Your task to perform on an android device: open a bookmark in the chrome app Image 0: 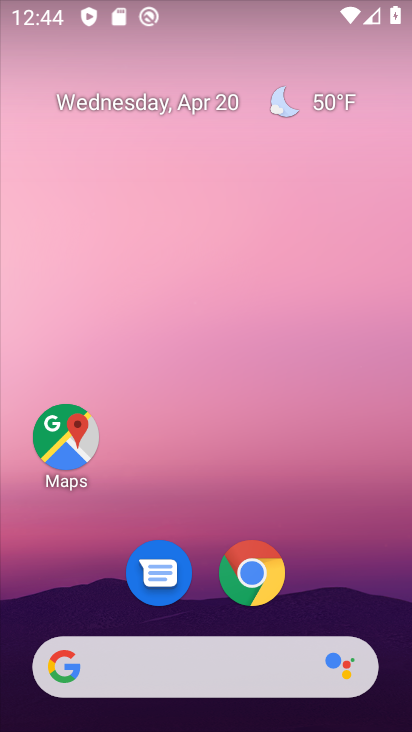
Step 0: drag from (300, 307) to (289, 0)
Your task to perform on an android device: open a bookmark in the chrome app Image 1: 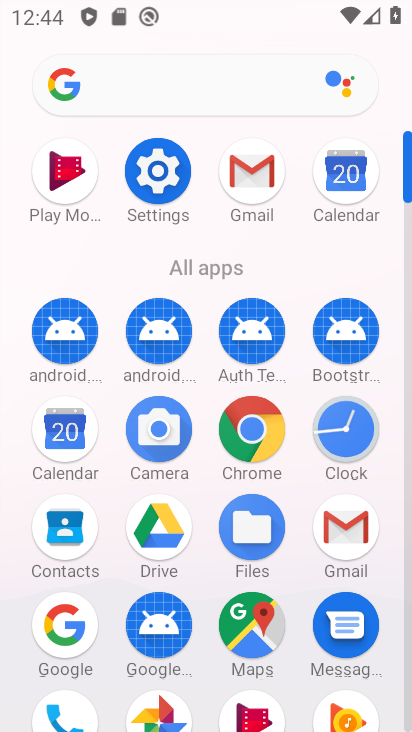
Step 1: click (278, 443)
Your task to perform on an android device: open a bookmark in the chrome app Image 2: 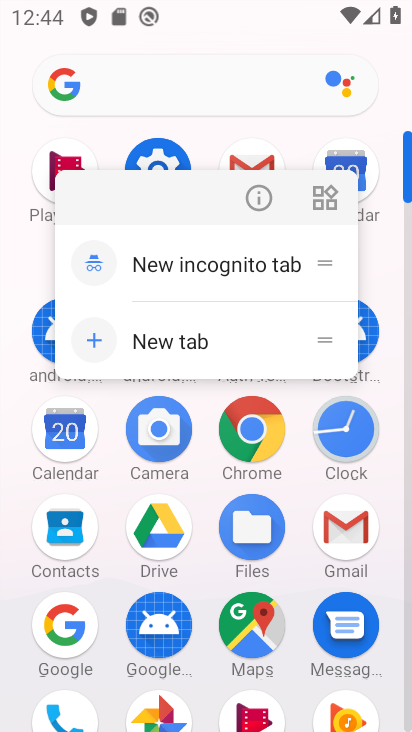
Step 2: click (264, 437)
Your task to perform on an android device: open a bookmark in the chrome app Image 3: 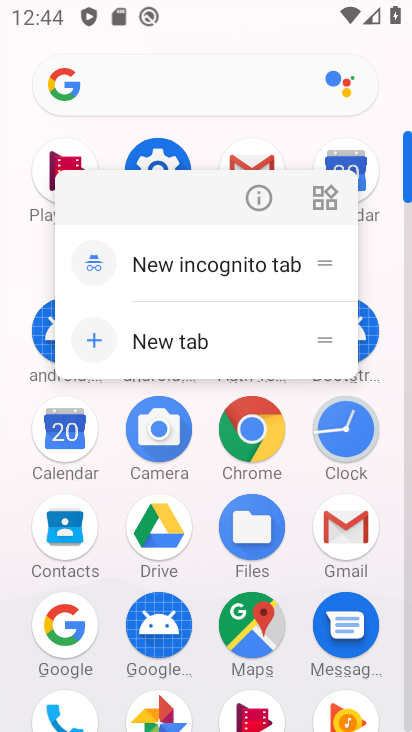
Step 3: click (264, 437)
Your task to perform on an android device: open a bookmark in the chrome app Image 4: 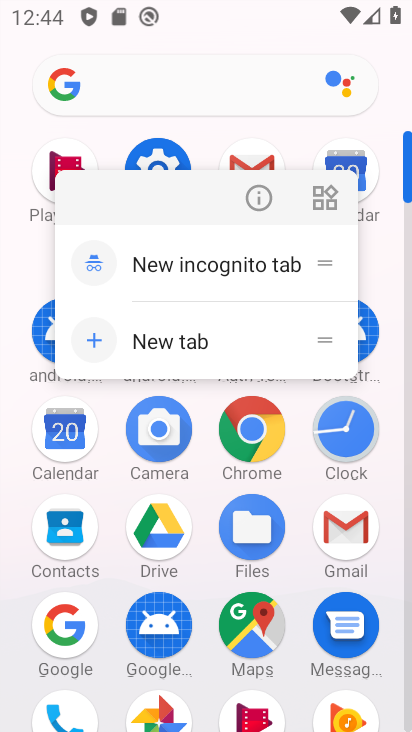
Step 4: click (264, 437)
Your task to perform on an android device: open a bookmark in the chrome app Image 5: 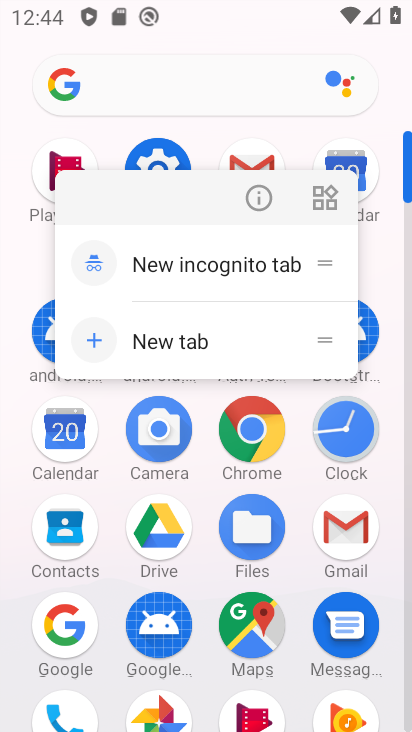
Step 5: click (264, 437)
Your task to perform on an android device: open a bookmark in the chrome app Image 6: 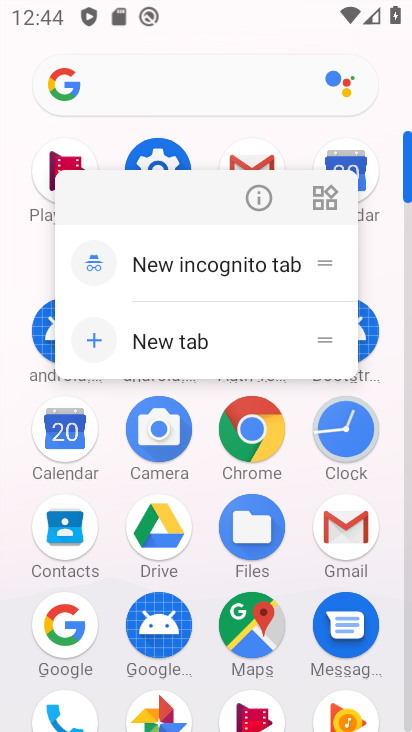
Step 6: click (264, 437)
Your task to perform on an android device: open a bookmark in the chrome app Image 7: 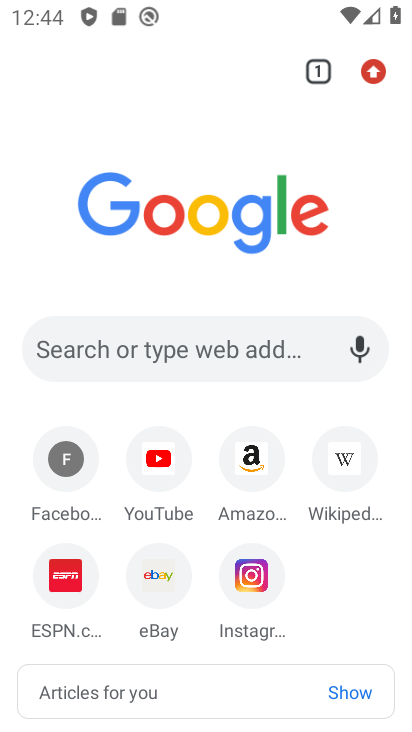
Step 7: click (383, 66)
Your task to perform on an android device: open a bookmark in the chrome app Image 8: 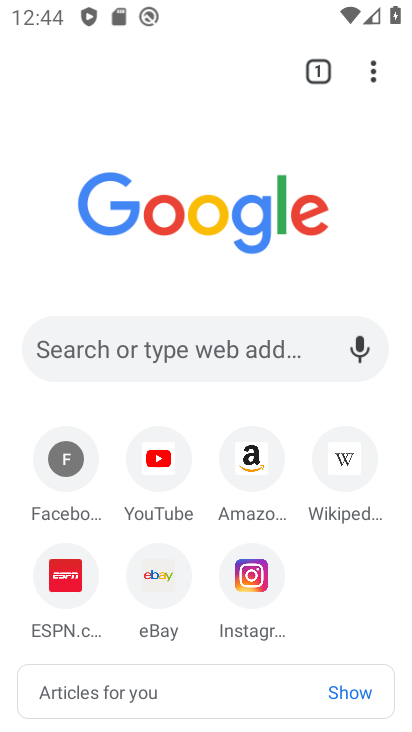
Step 8: click (379, 70)
Your task to perform on an android device: open a bookmark in the chrome app Image 9: 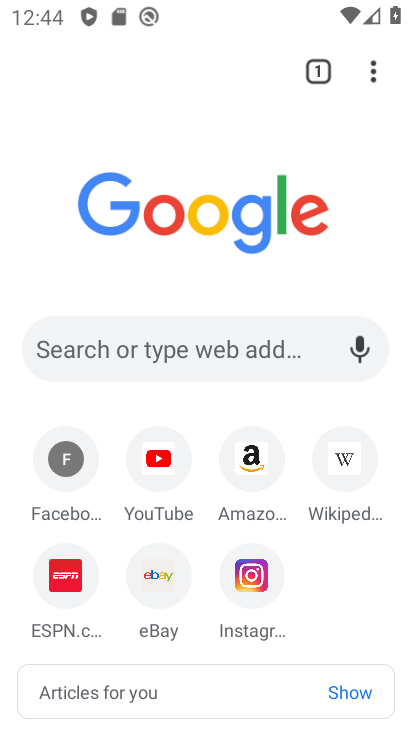
Step 9: click (379, 70)
Your task to perform on an android device: open a bookmark in the chrome app Image 10: 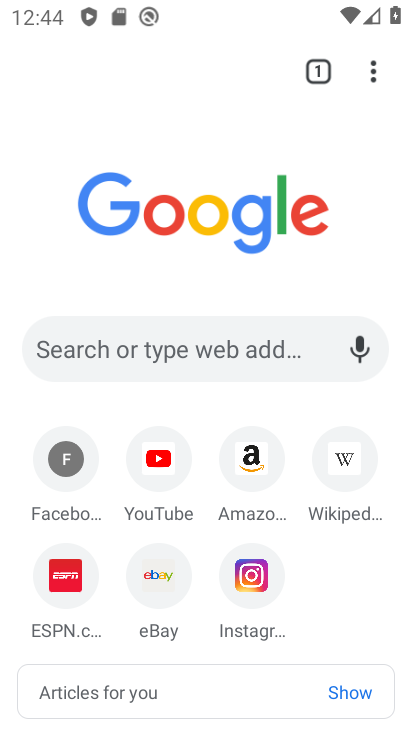
Step 10: click (382, 72)
Your task to perform on an android device: open a bookmark in the chrome app Image 11: 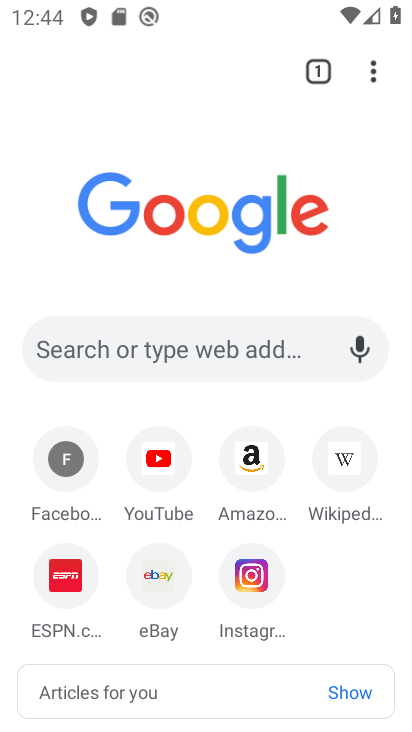
Step 11: click (384, 68)
Your task to perform on an android device: open a bookmark in the chrome app Image 12: 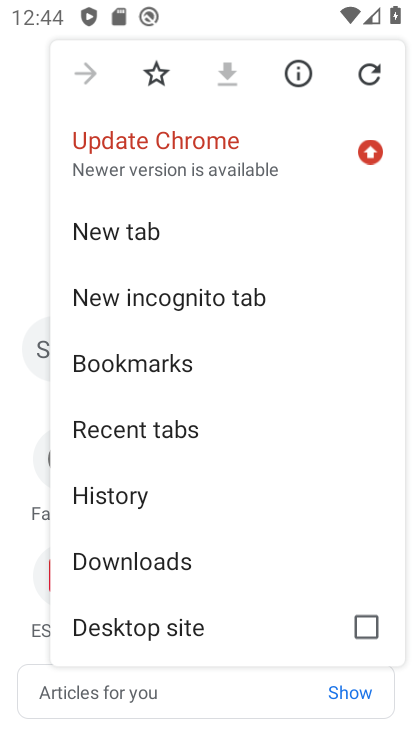
Step 12: click (194, 361)
Your task to perform on an android device: open a bookmark in the chrome app Image 13: 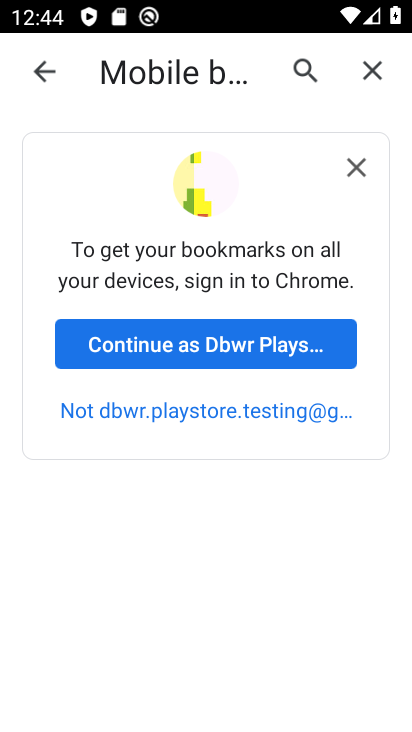
Step 13: task complete